Your task to perform on an android device: Search for pizza restaurants on Maps Image 0: 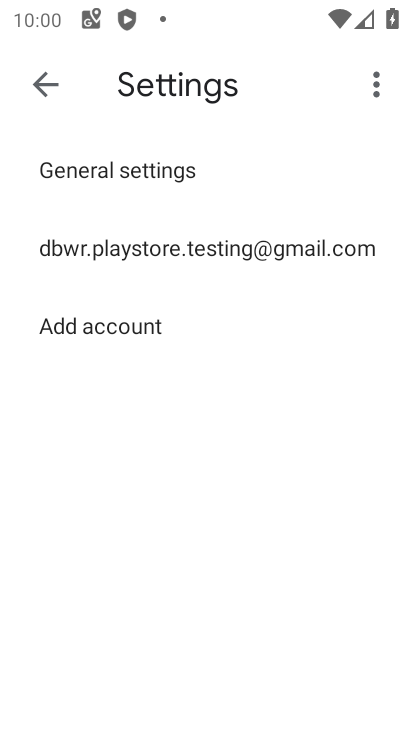
Step 0: press home button
Your task to perform on an android device: Search for pizza restaurants on Maps Image 1: 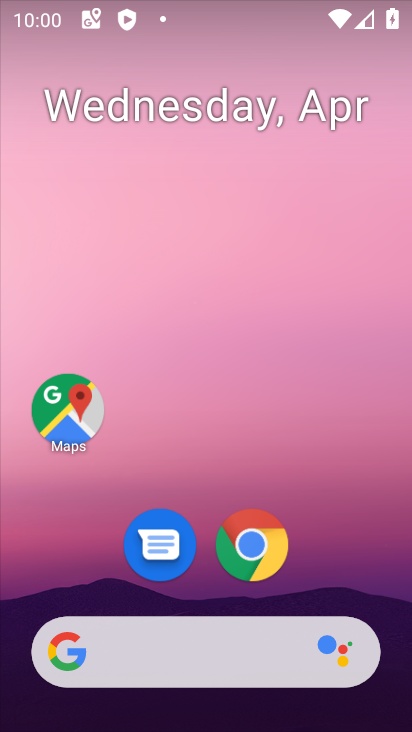
Step 1: click (63, 415)
Your task to perform on an android device: Search for pizza restaurants on Maps Image 2: 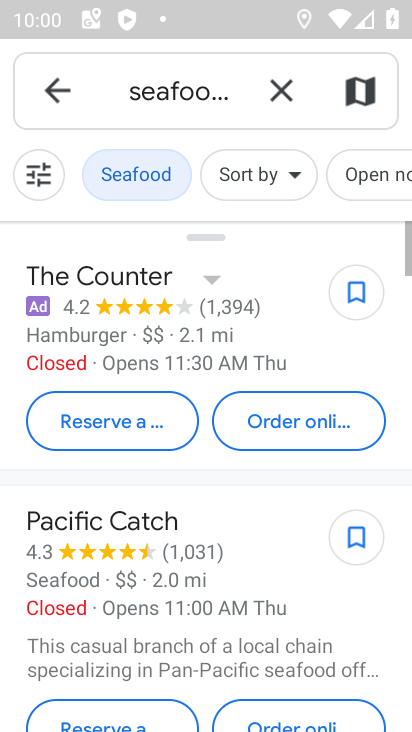
Step 2: click (274, 91)
Your task to perform on an android device: Search for pizza restaurants on Maps Image 3: 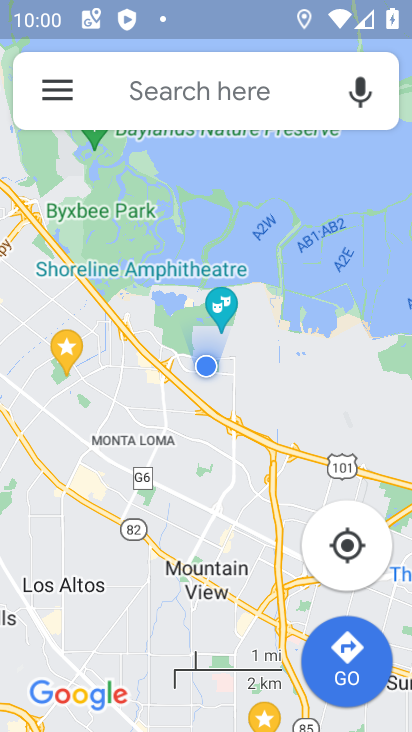
Step 3: click (98, 96)
Your task to perform on an android device: Search for pizza restaurants on Maps Image 4: 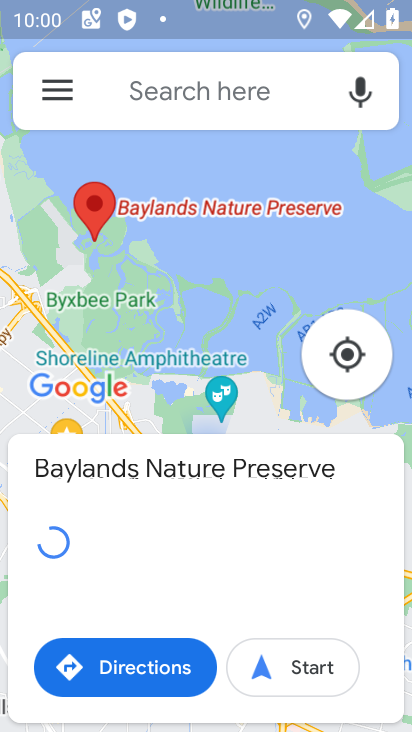
Step 4: click (141, 94)
Your task to perform on an android device: Search for pizza restaurants on Maps Image 5: 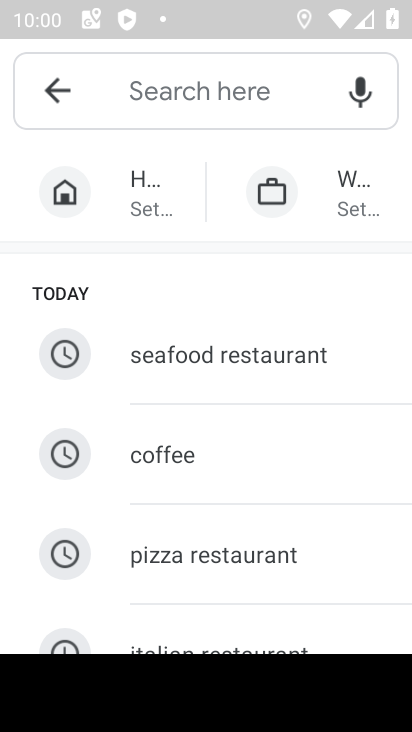
Step 5: type "pizza restaurant"
Your task to perform on an android device: Search for pizza restaurants on Maps Image 6: 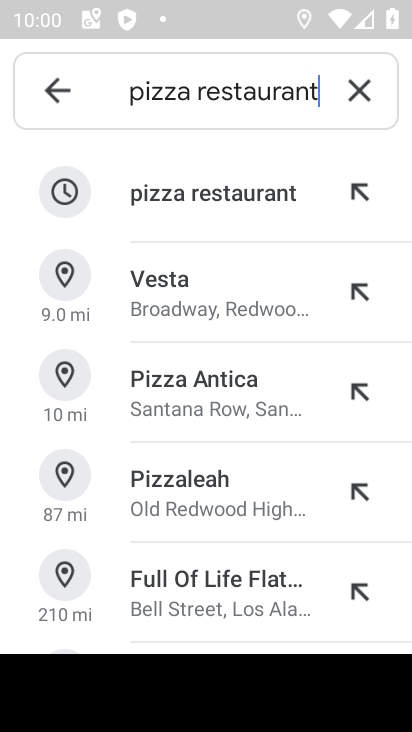
Step 6: click (190, 194)
Your task to perform on an android device: Search for pizza restaurants on Maps Image 7: 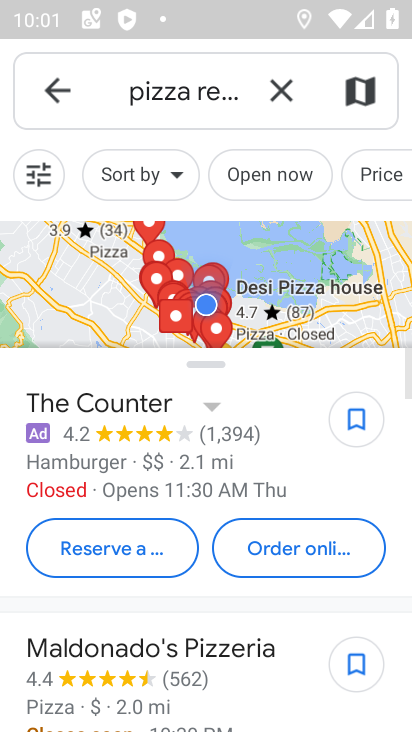
Step 7: task complete